Your task to perform on an android device: find photos in the google photos app Image 0: 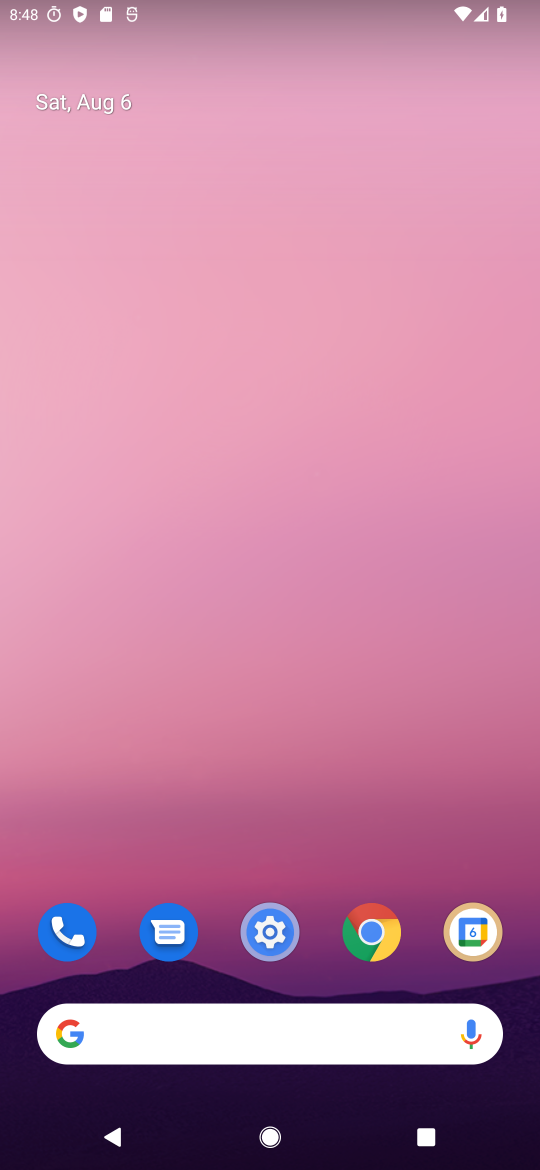
Step 0: press home button
Your task to perform on an android device: find photos in the google photos app Image 1: 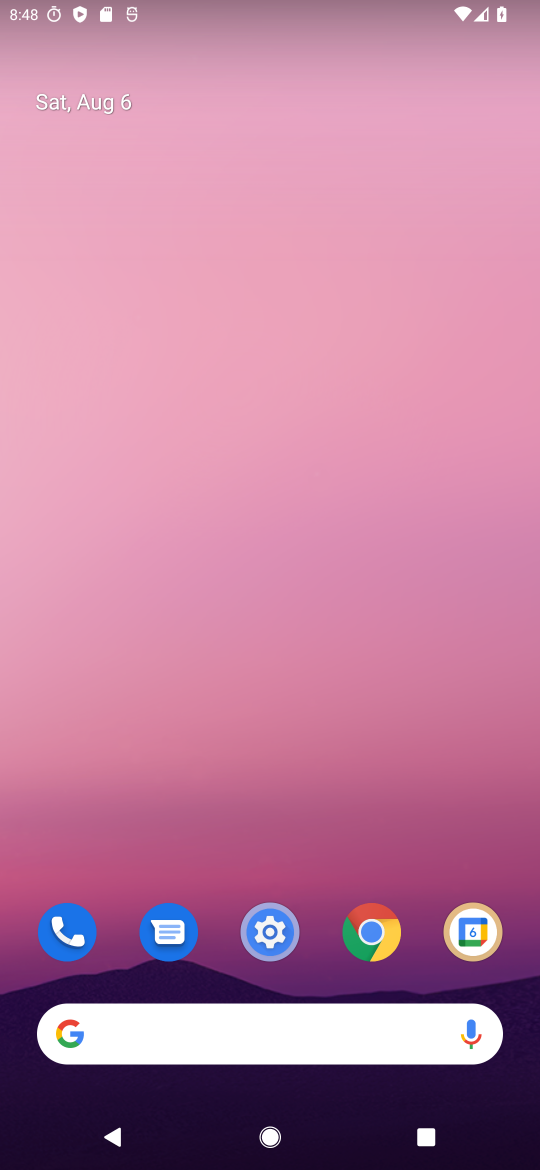
Step 1: drag from (235, 1043) to (387, 29)
Your task to perform on an android device: find photos in the google photos app Image 2: 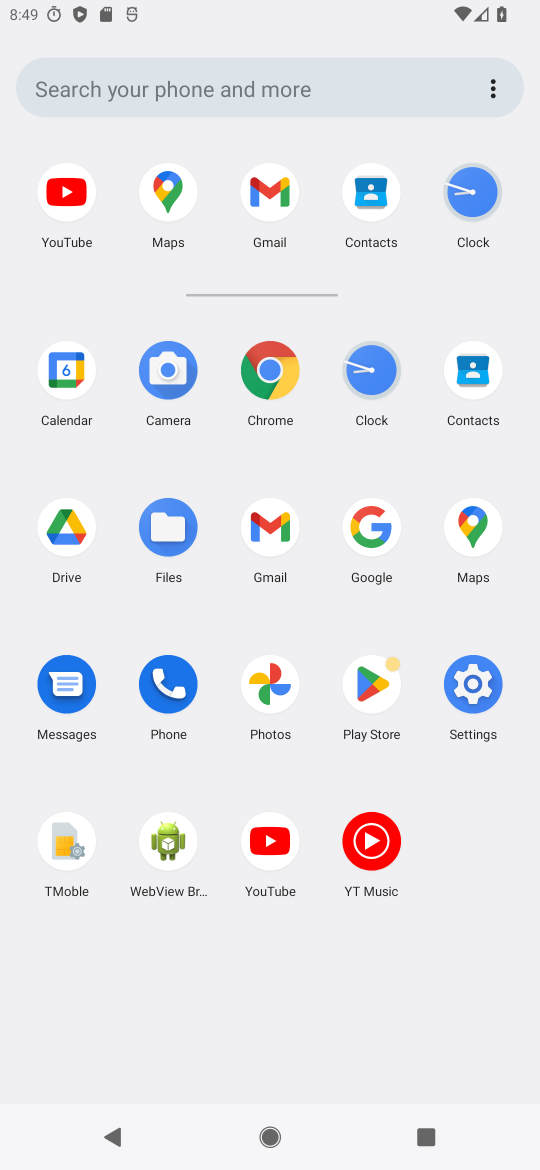
Step 2: click (266, 679)
Your task to perform on an android device: find photos in the google photos app Image 3: 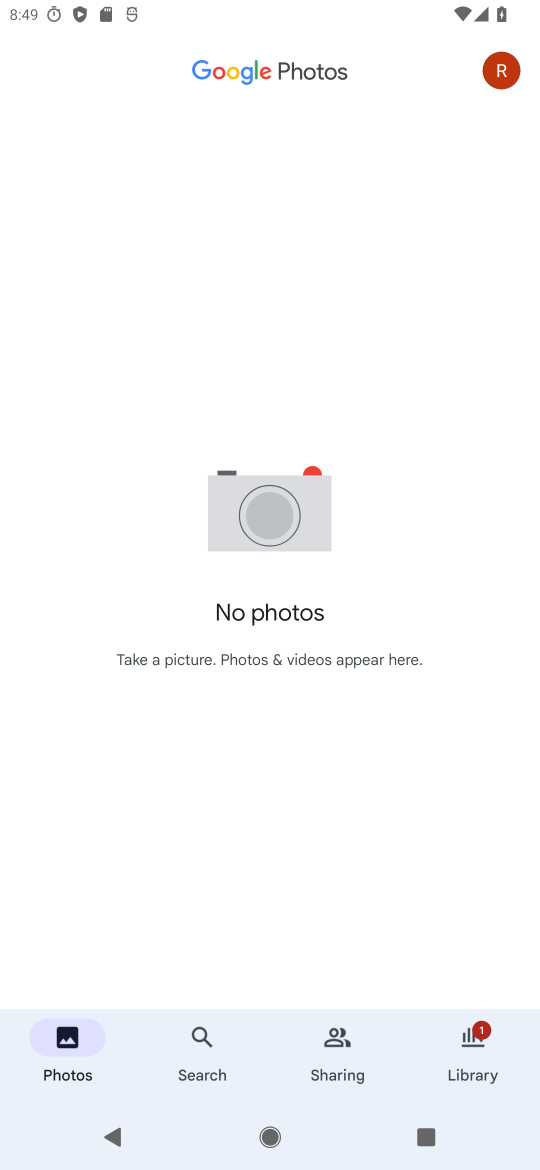
Step 3: task complete